Your task to perform on an android device: Search for pizza restaurants on Maps Image 0: 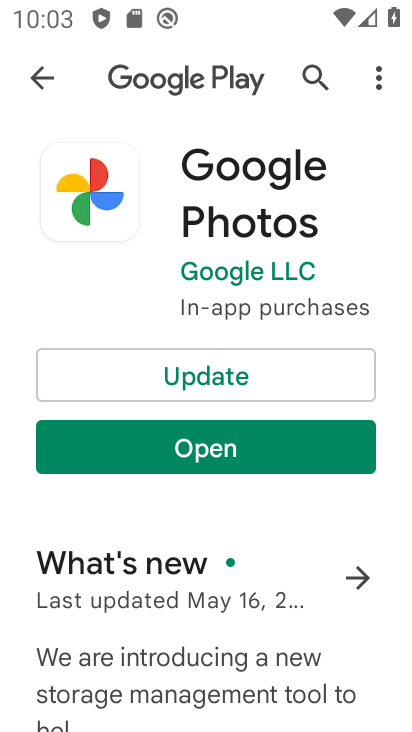
Step 0: press home button
Your task to perform on an android device: Search for pizza restaurants on Maps Image 1: 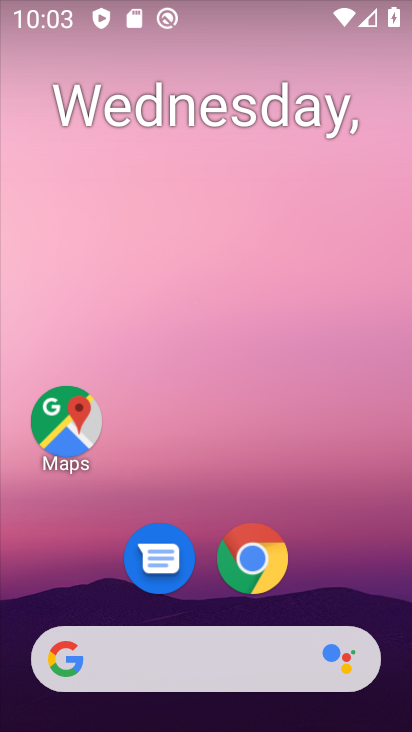
Step 1: click (70, 422)
Your task to perform on an android device: Search for pizza restaurants on Maps Image 2: 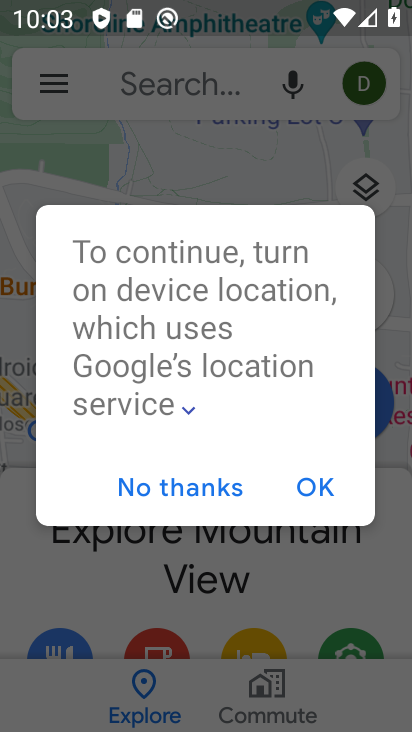
Step 2: click (198, 486)
Your task to perform on an android device: Search for pizza restaurants on Maps Image 3: 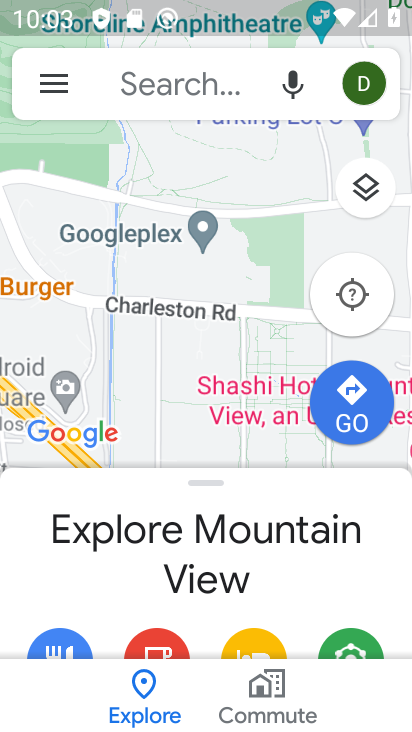
Step 3: click (168, 83)
Your task to perform on an android device: Search for pizza restaurants on Maps Image 4: 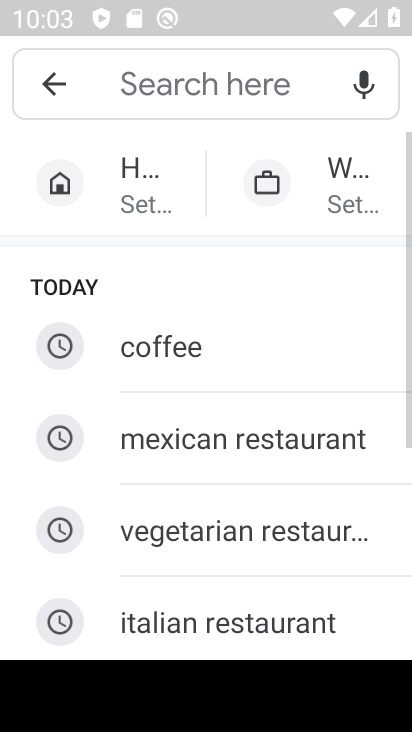
Step 4: drag from (52, 515) to (289, 188)
Your task to perform on an android device: Search for pizza restaurants on Maps Image 5: 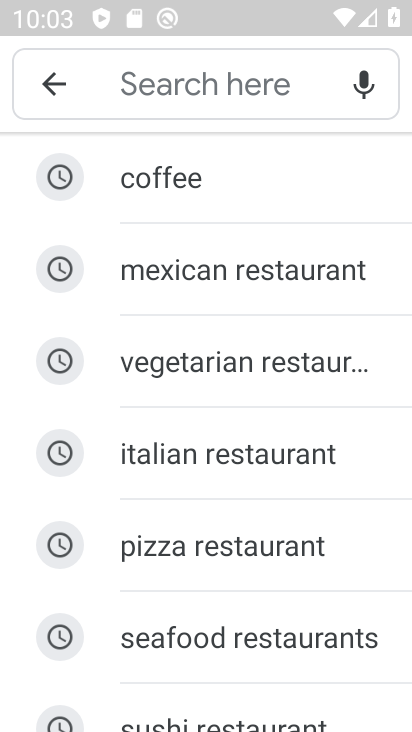
Step 5: click (162, 541)
Your task to perform on an android device: Search for pizza restaurants on Maps Image 6: 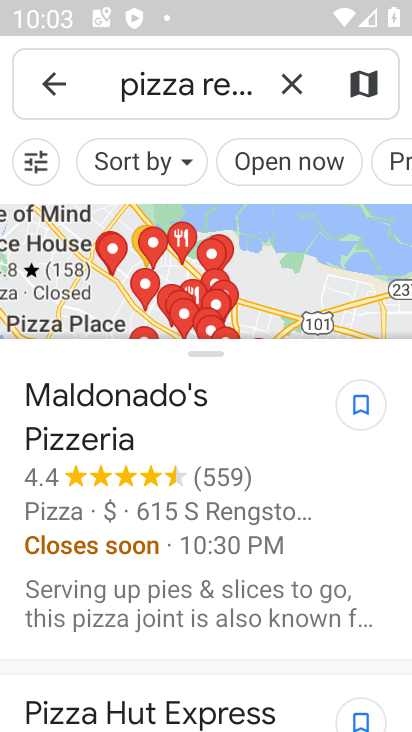
Step 6: task complete